Your task to perform on an android device: turn notification dots on Image 0: 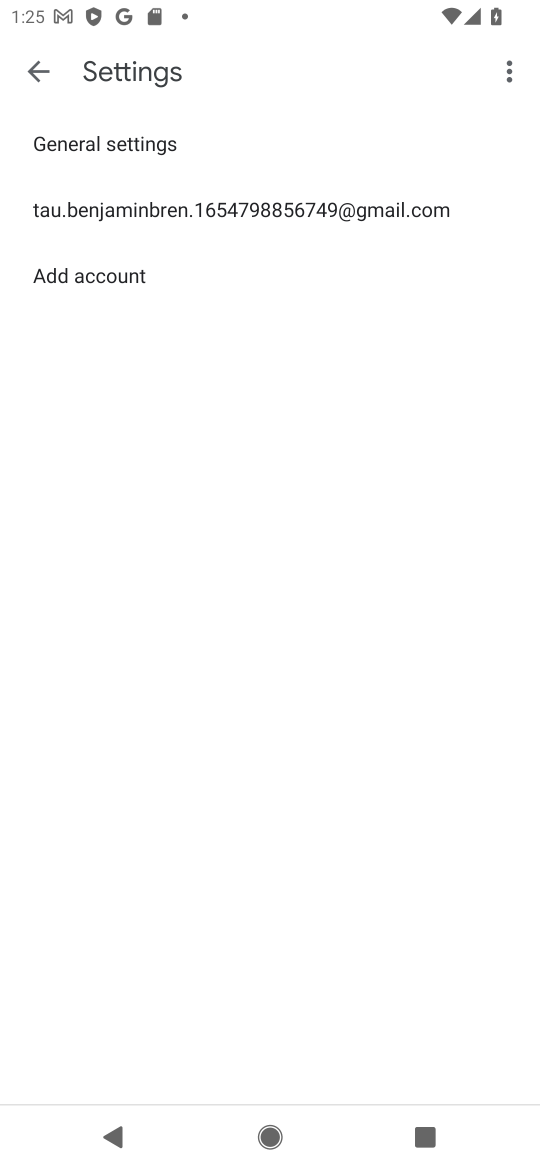
Step 0: press home button
Your task to perform on an android device: turn notification dots on Image 1: 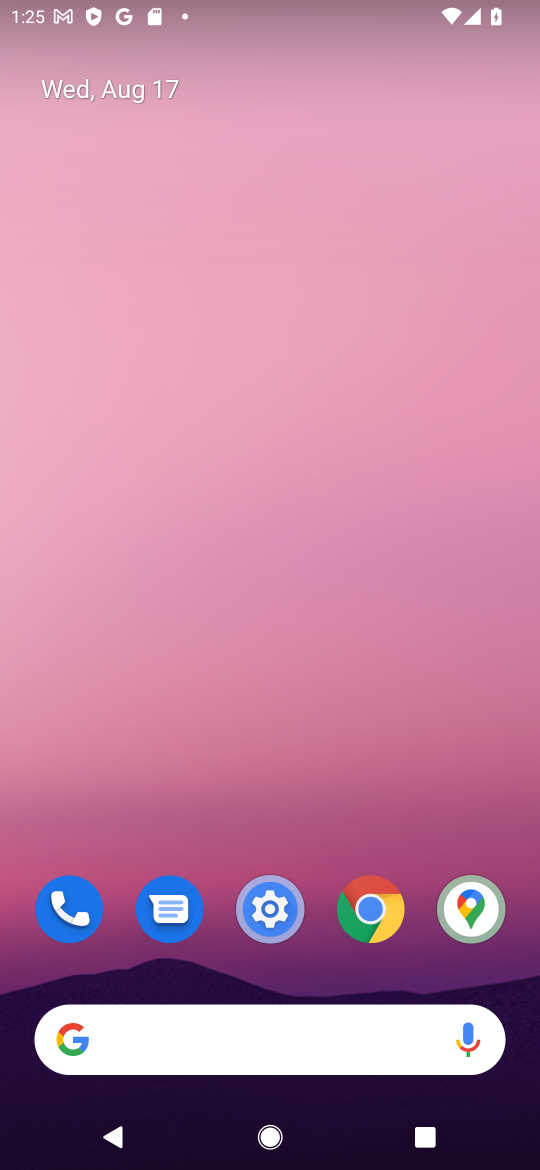
Step 1: drag from (258, 811) to (328, 275)
Your task to perform on an android device: turn notification dots on Image 2: 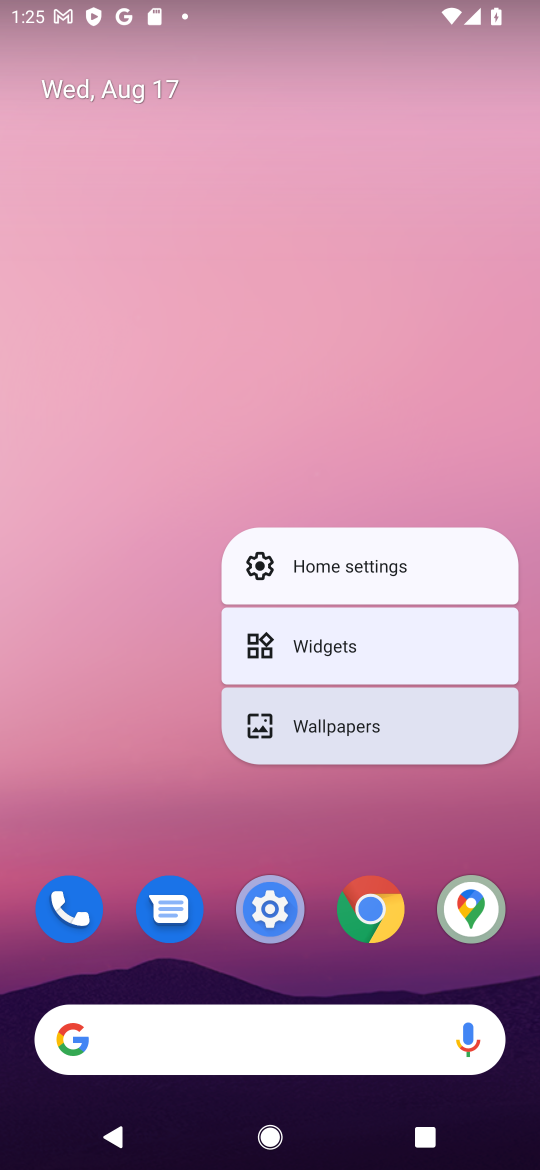
Step 2: click (142, 682)
Your task to perform on an android device: turn notification dots on Image 3: 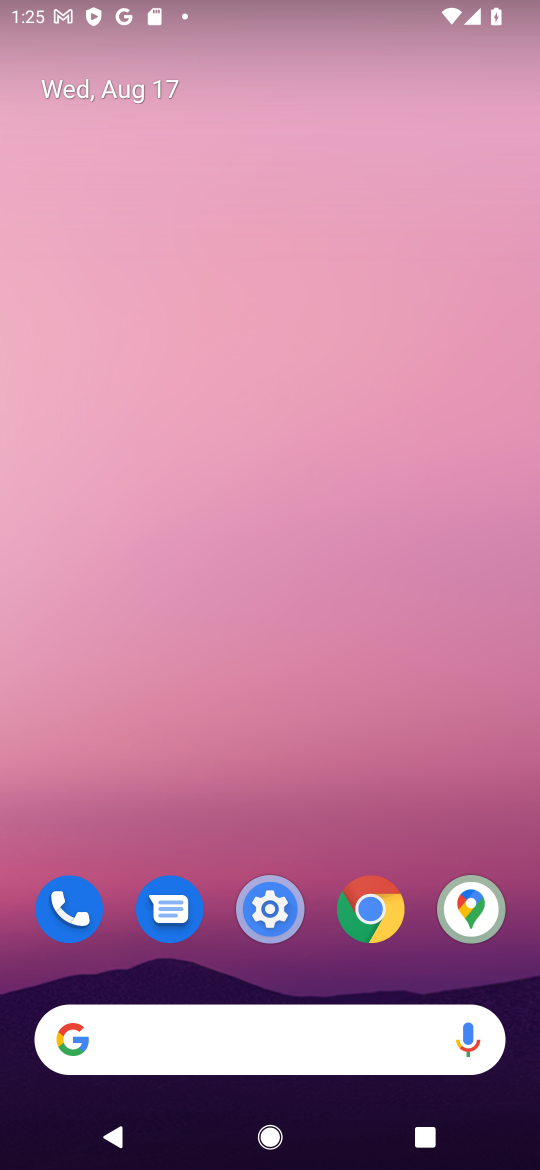
Step 3: task complete